Your task to perform on an android device: Open sound settings Image 0: 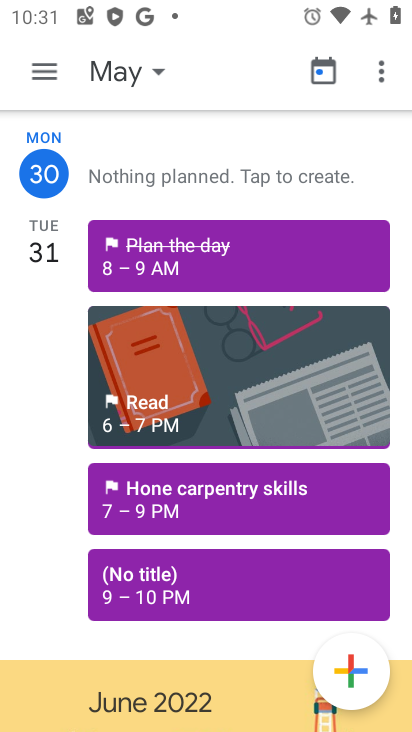
Step 0: press home button
Your task to perform on an android device: Open sound settings Image 1: 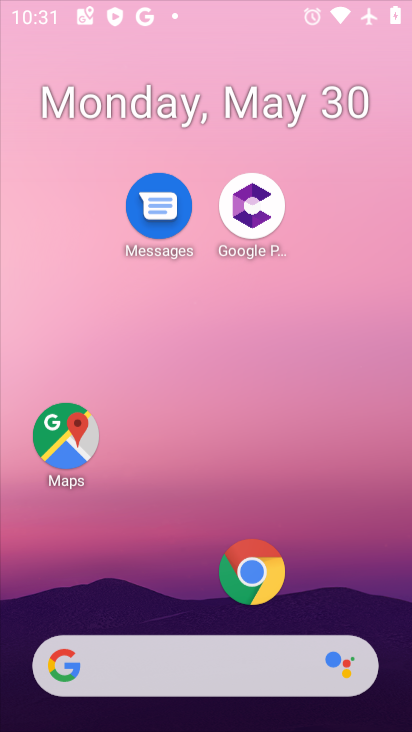
Step 1: press home button
Your task to perform on an android device: Open sound settings Image 2: 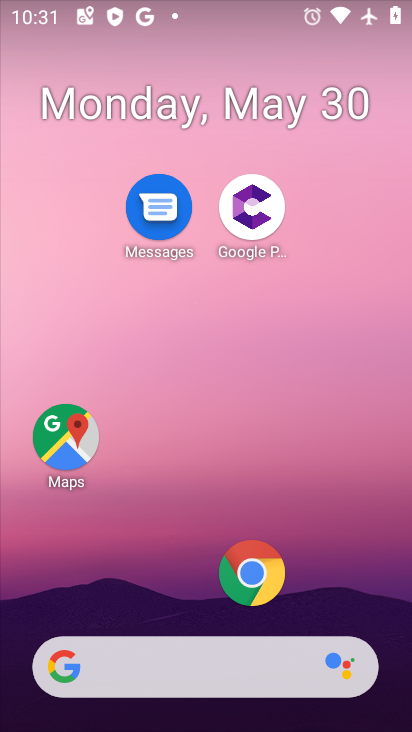
Step 2: drag from (227, 722) to (271, 205)
Your task to perform on an android device: Open sound settings Image 3: 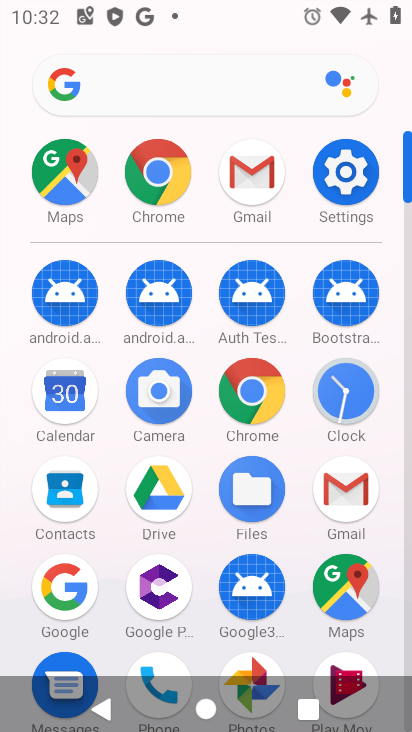
Step 3: click (353, 219)
Your task to perform on an android device: Open sound settings Image 4: 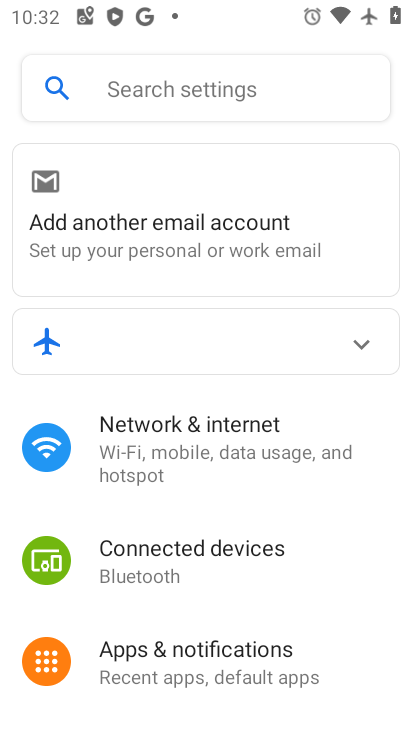
Step 4: drag from (181, 629) to (180, 274)
Your task to perform on an android device: Open sound settings Image 5: 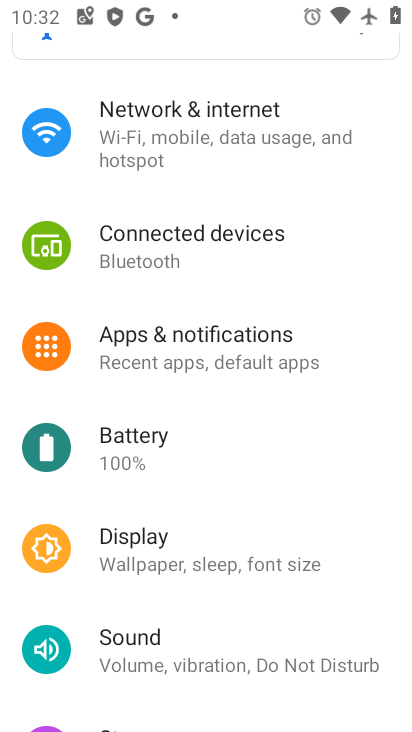
Step 5: click (189, 637)
Your task to perform on an android device: Open sound settings Image 6: 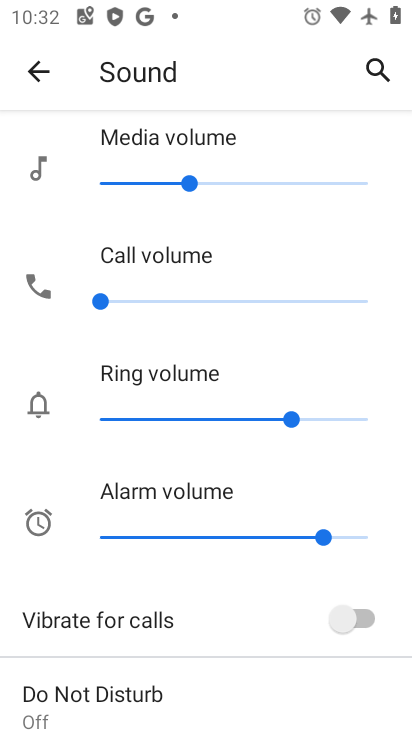
Step 6: task complete